Your task to perform on an android device: Open Youtube and go to "Your channel" Image 0: 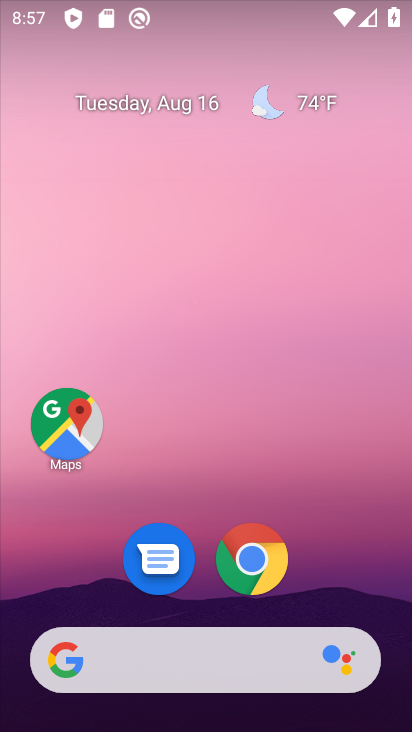
Step 0: drag from (185, 674) to (201, 88)
Your task to perform on an android device: Open Youtube and go to "Your channel" Image 1: 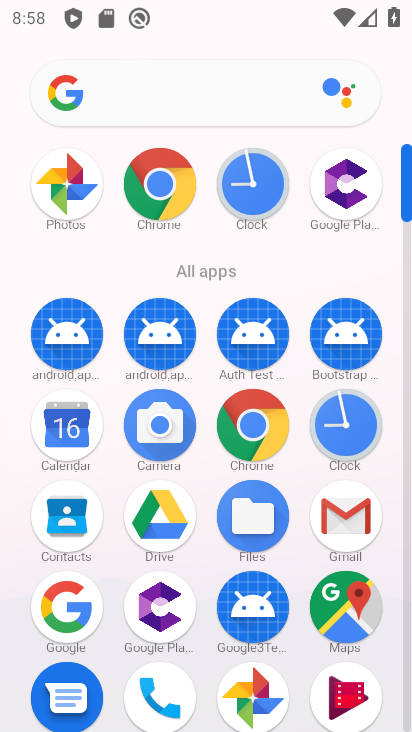
Step 1: drag from (189, 440) to (201, 253)
Your task to perform on an android device: Open Youtube and go to "Your channel" Image 2: 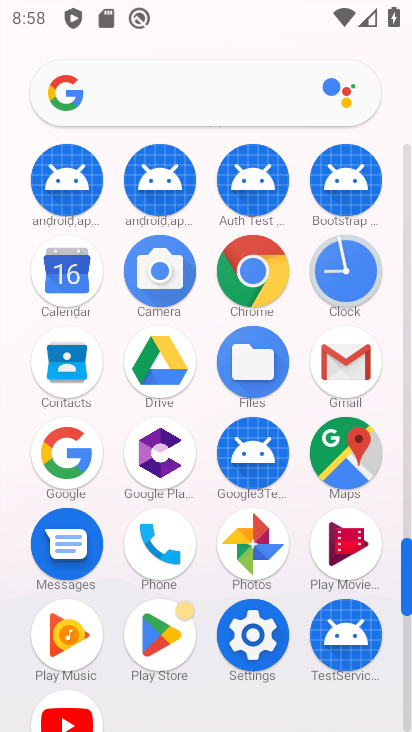
Step 2: drag from (206, 703) to (200, 401)
Your task to perform on an android device: Open Youtube and go to "Your channel" Image 3: 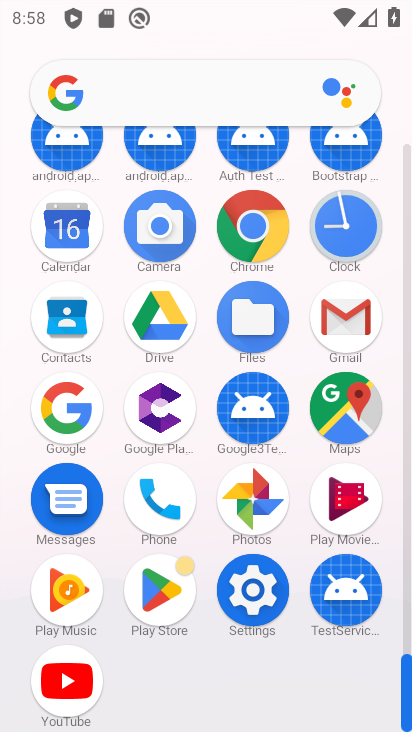
Step 3: click (66, 680)
Your task to perform on an android device: Open Youtube and go to "Your channel" Image 4: 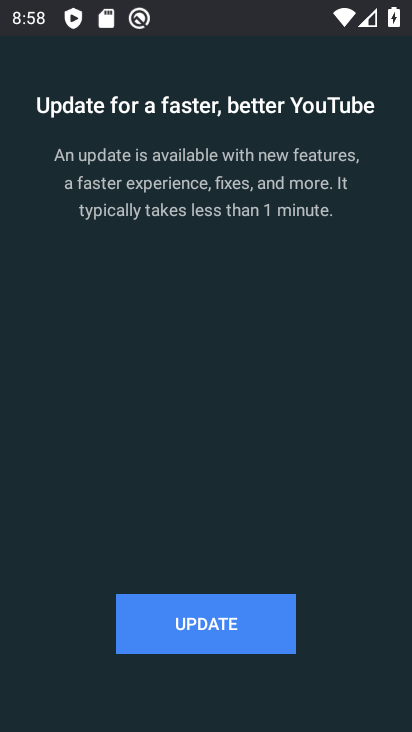
Step 4: click (215, 624)
Your task to perform on an android device: Open Youtube and go to "Your channel" Image 5: 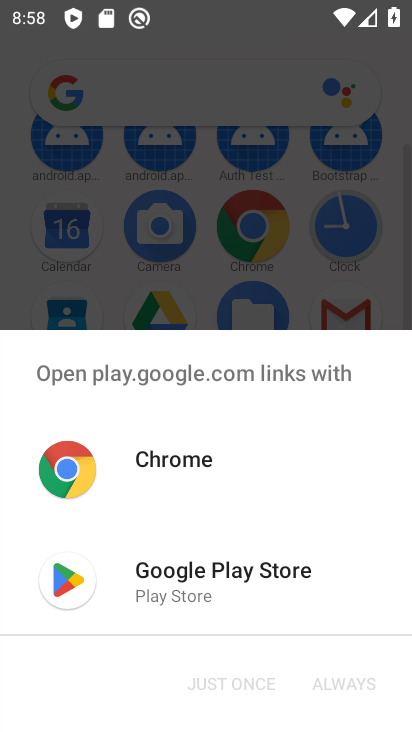
Step 5: click (206, 581)
Your task to perform on an android device: Open Youtube and go to "Your channel" Image 6: 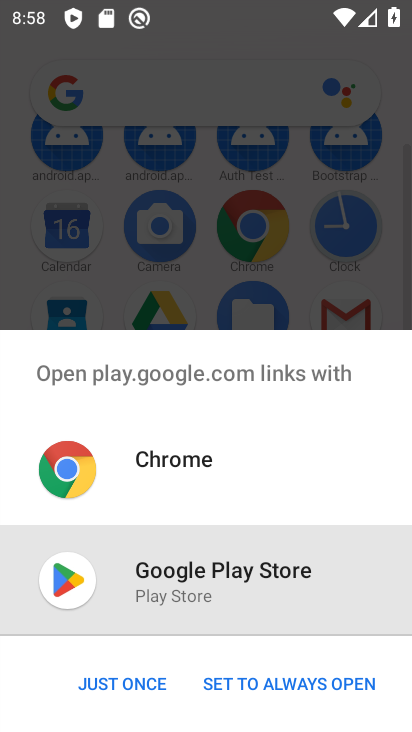
Step 6: click (145, 684)
Your task to perform on an android device: Open Youtube and go to "Your channel" Image 7: 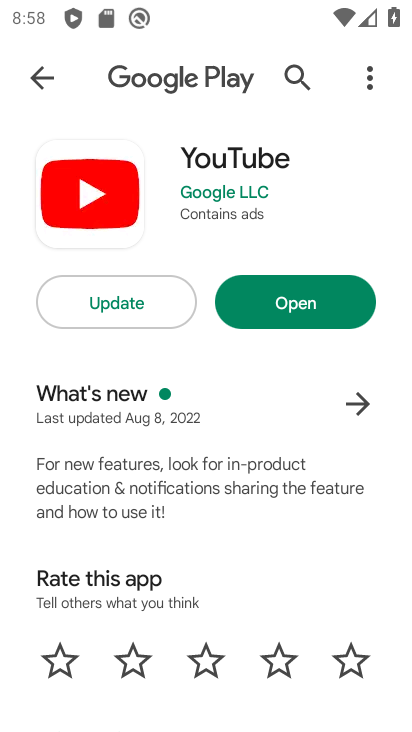
Step 7: click (102, 301)
Your task to perform on an android device: Open Youtube and go to "Your channel" Image 8: 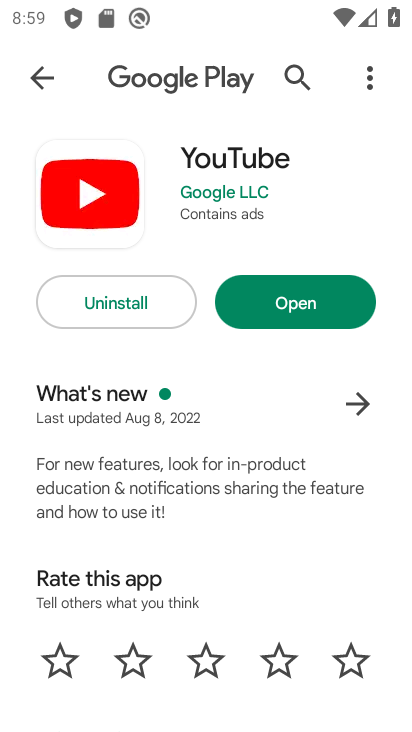
Step 8: click (281, 310)
Your task to perform on an android device: Open Youtube and go to "Your channel" Image 9: 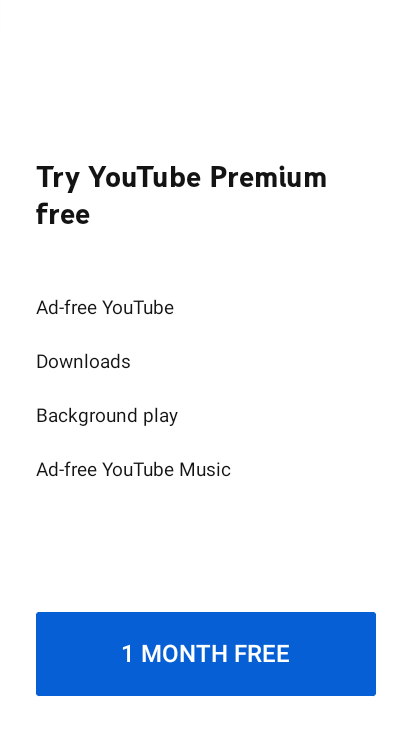
Step 9: click (371, 69)
Your task to perform on an android device: Open Youtube and go to "Your channel" Image 10: 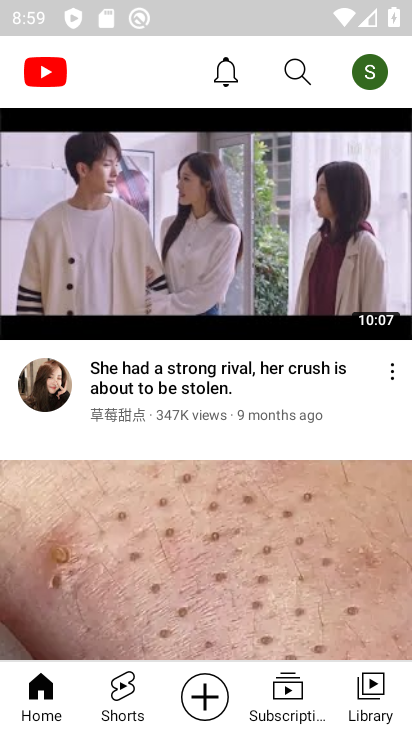
Step 10: click (371, 72)
Your task to perform on an android device: Open Youtube and go to "Your channel" Image 11: 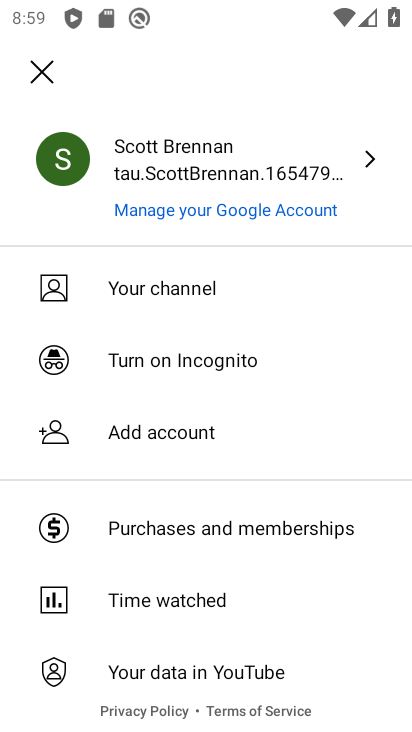
Step 11: click (182, 288)
Your task to perform on an android device: Open Youtube and go to "Your channel" Image 12: 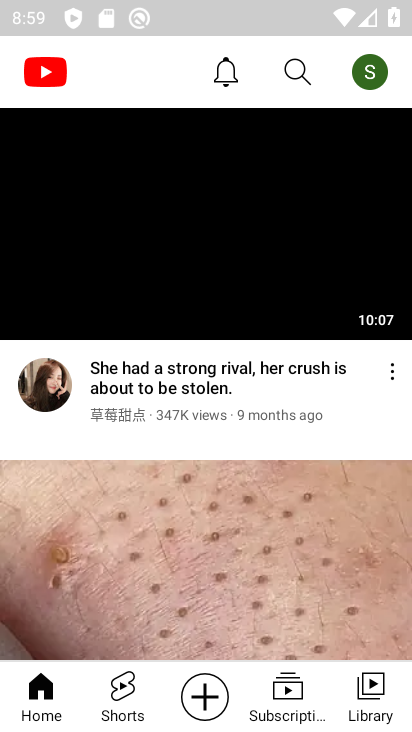
Step 12: task complete